Your task to perform on an android device: Do I have any events today? Image 0: 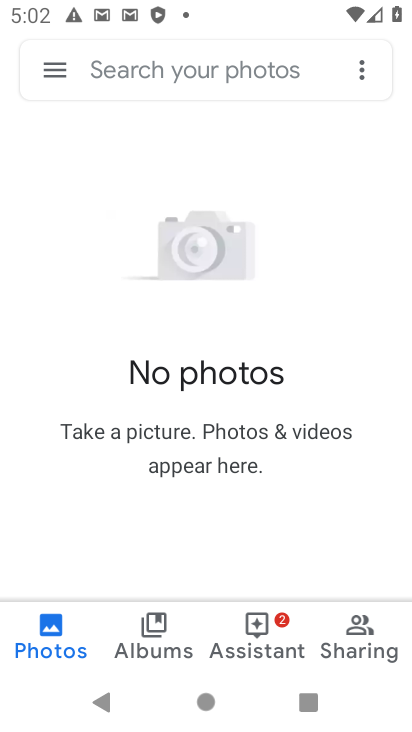
Step 0: press home button
Your task to perform on an android device: Do I have any events today? Image 1: 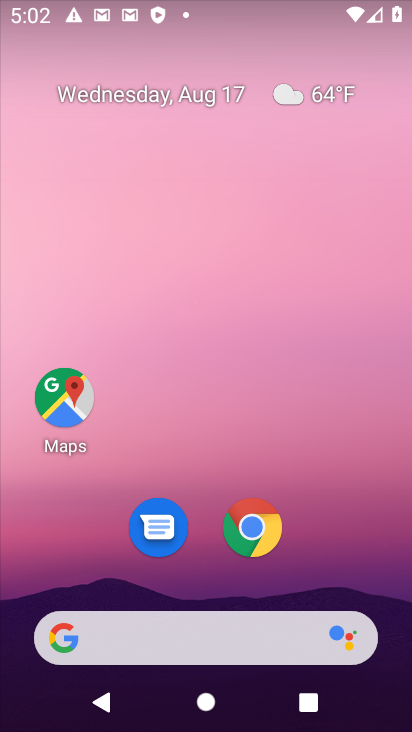
Step 1: drag from (214, 607) to (152, 229)
Your task to perform on an android device: Do I have any events today? Image 2: 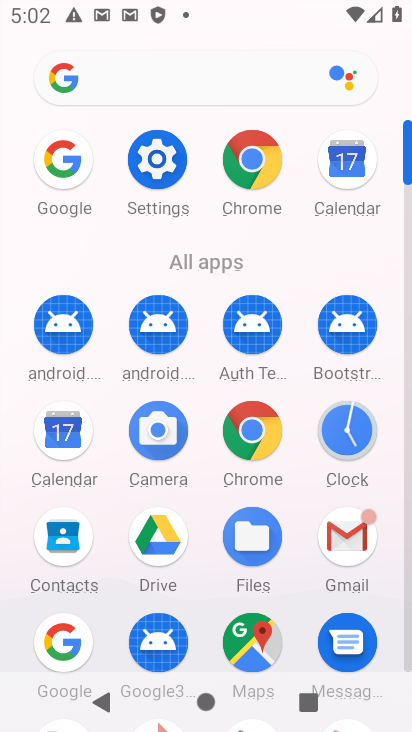
Step 2: click (346, 164)
Your task to perform on an android device: Do I have any events today? Image 3: 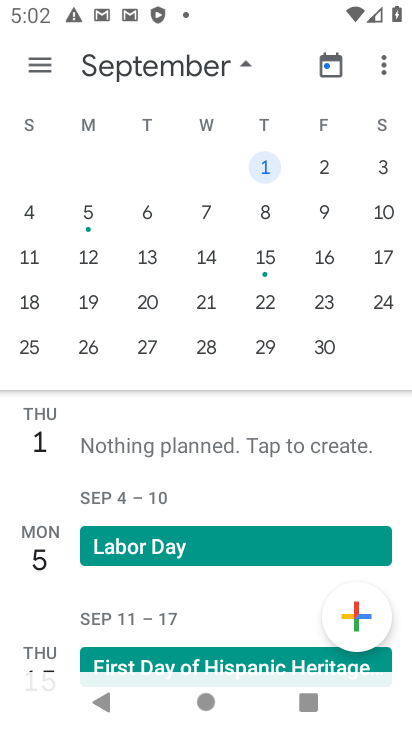
Step 3: drag from (3, 187) to (409, 158)
Your task to perform on an android device: Do I have any events today? Image 4: 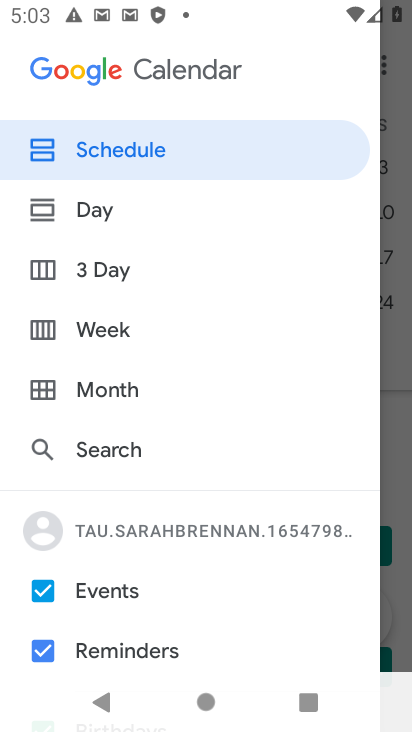
Step 4: click (385, 139)
Your task to perform on an android device: Do I have any events today? Image 5: 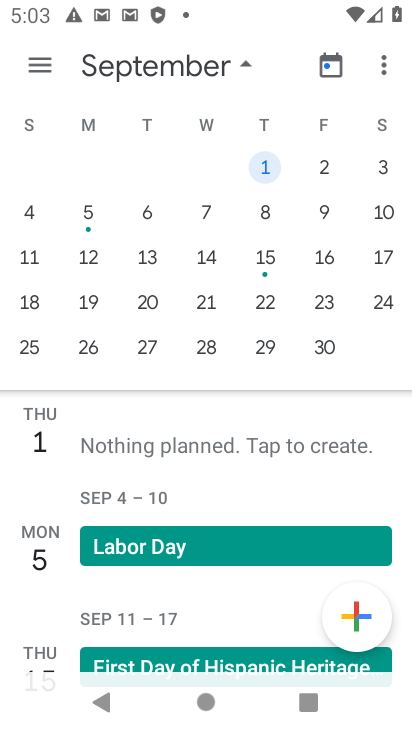
Step 5: drag from (80, 159) to (411, 248)
Your task to perform on an android device: Do I have any events today? Image 6: 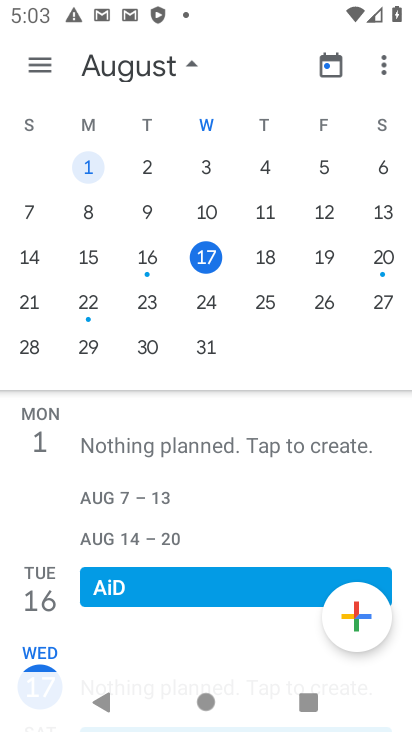
Step 6: click (211, 253)
Your task to perform on an android device: Do I have any events today? Image 7: 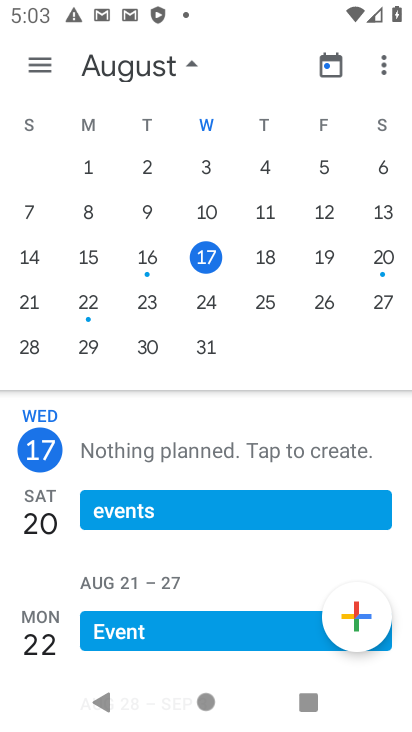
Step 7: task complete